Your task to perform on an android device: open the mobile data screen to see how much data has been used Image 0: 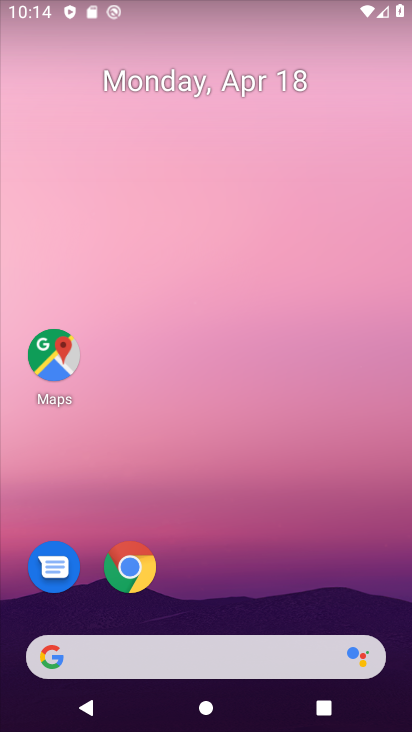
Step 0: drag from (214, 620) to (286, 133)
Your task to perform on an android device: open the mobile data screen to see how much data has been used Image 1: 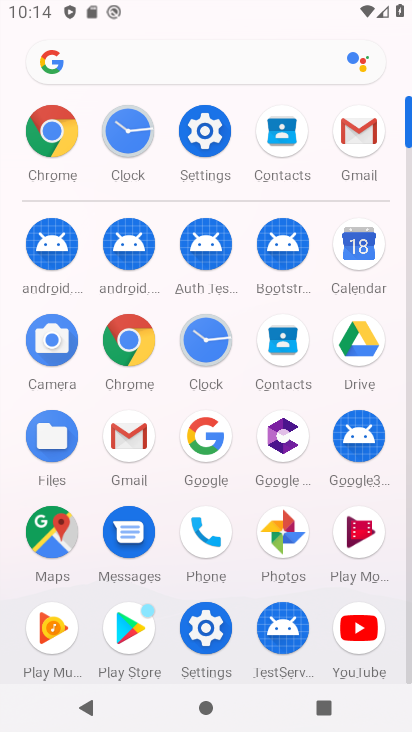
Step 1: click (209, 142)
Your task to perform on an android device: open the mobile data screen to see how much data has been used Image 2: 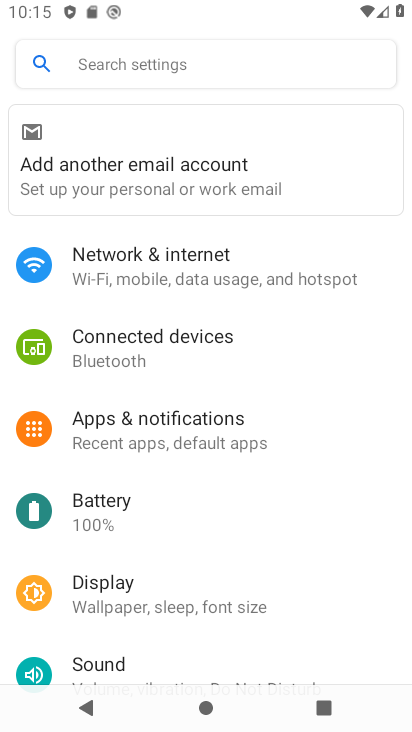
Step 2: click (157, 274)
Your task to perform on an android device: open the mobile data screen to see how much data has been used Image 3: 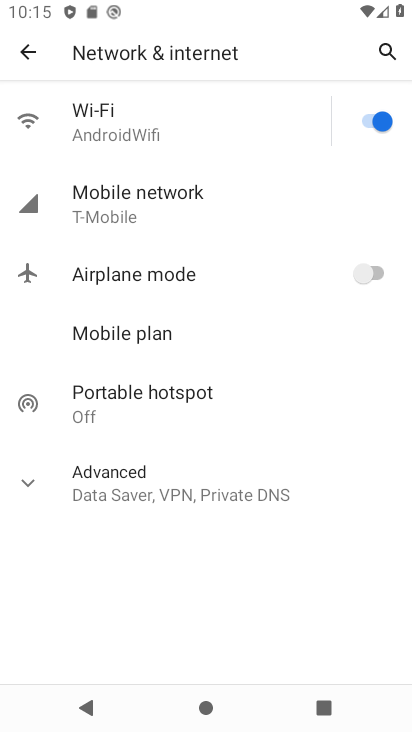
Step 3: click (135, 211)
Your task to perform on an android device: open the mobile data screen to see how much data has been used Image 4: 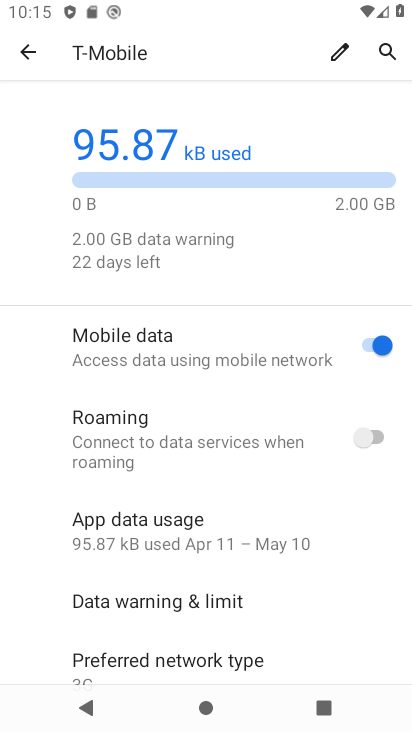
Step 4: task complete